Your task to perform on an android device: toggle pop-ups in chrome Image 0: 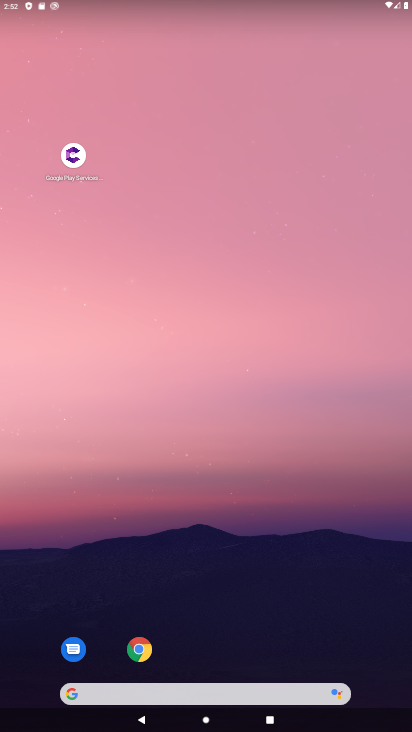
Step 0: drag from (236, 550) to (209, 358)
Your task to perform on an android device: toggle pop-ups in chrome Image 1: 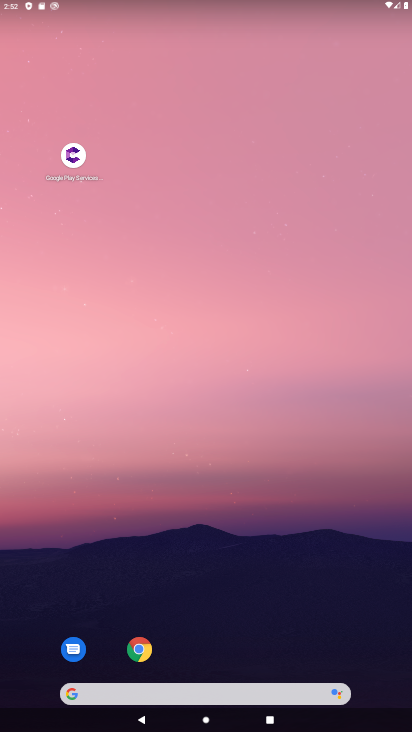
Step 1: drag from (261, 352) to (261, 202)
Your task to perform on an android device: toggle pop-ups in chrome Image 2: 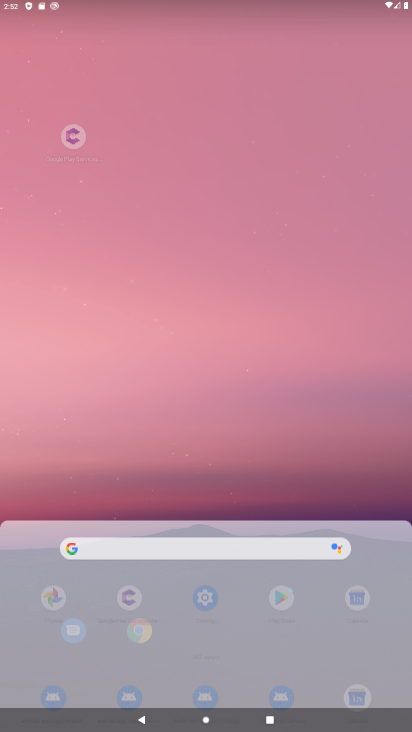
Step 2: drag from (248, 530) to (250, 289)
Your task to perform on an android device: toggle pop-ups in chrome Image 3: 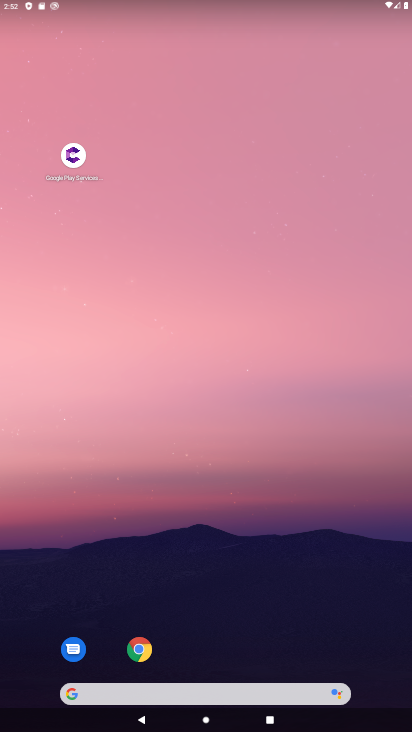
Step 3: drag from (226, 624) to (206, 272)
Your task to perform on an android device: toggle pop-ups in chrome Image 4: 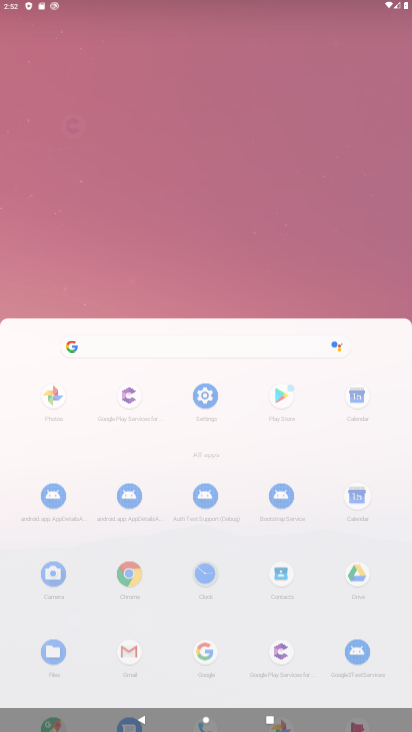
Step 4: drag from (233, 288) to (233, 6)
Your task to perform on an android device: toggle pop-ups in chrome Image 5: 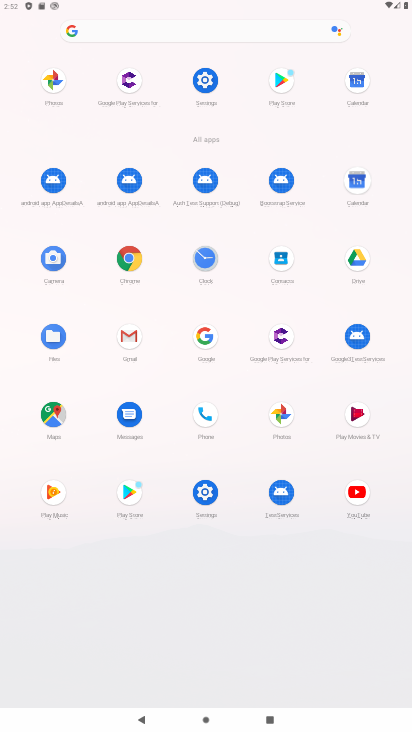
Step 5: drag from (266, 335) to (282, 48)
Your task to perform on an android device: toggle pop-ups in chrome Image 6: 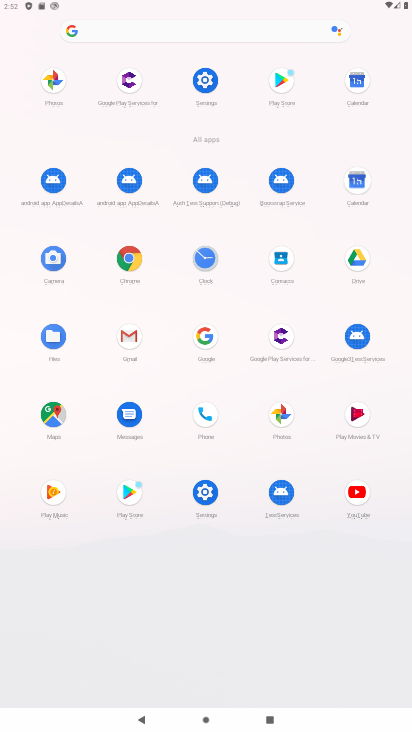
Step 6: click (131, 267)
Your task to perform on an android device: toggle pop-ups in chrome Image 7: 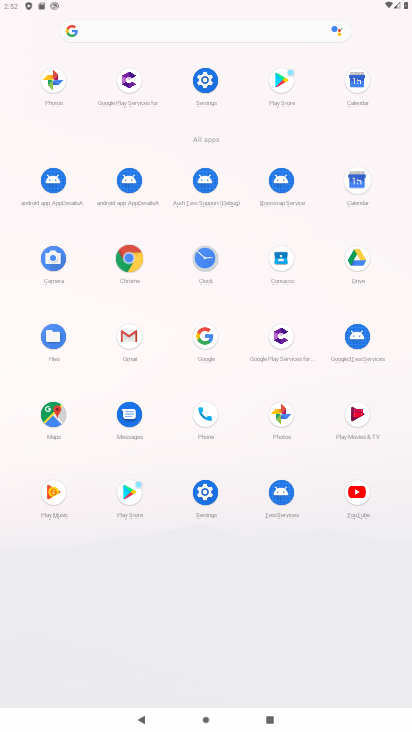
Step 7: click (131, 267)
Your task to perform on an android device: toggle pop-ups in chrome Image 8: 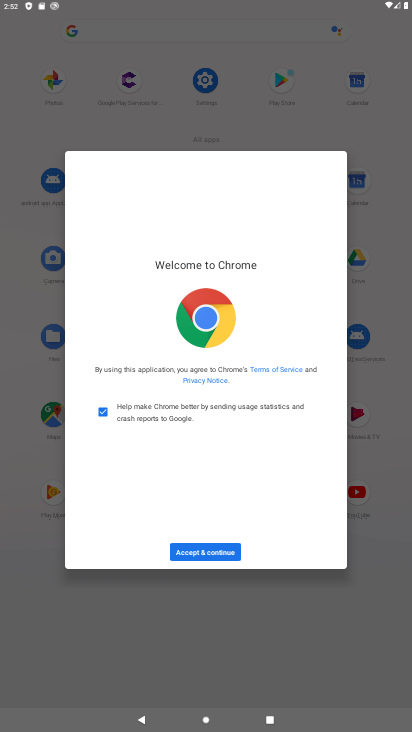
Step 8: click (208, 553)
Your task to perform on an android device: toggle pop-ups in chrome Image 9: 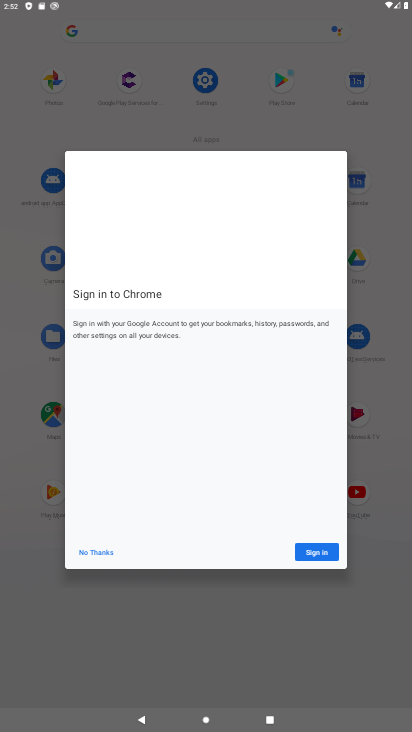
Step 9: click (208, 553)
Your task to perform on an android device: toggle pop-ups in chrome Image 10: 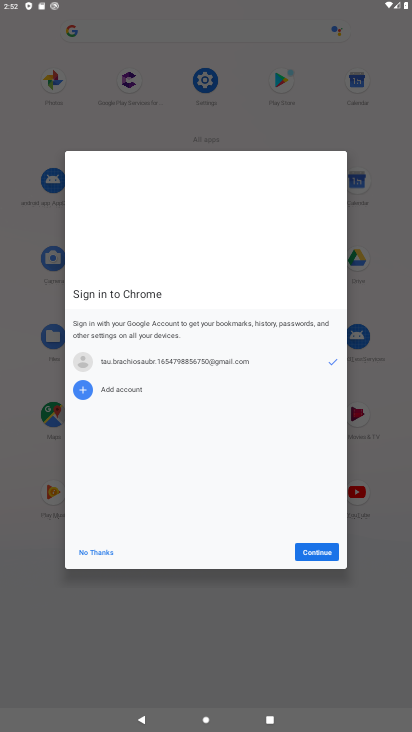
Step 10: click (208, 553)
Your task to perform on an android device: toggle pop-ups in chrome Image 11: 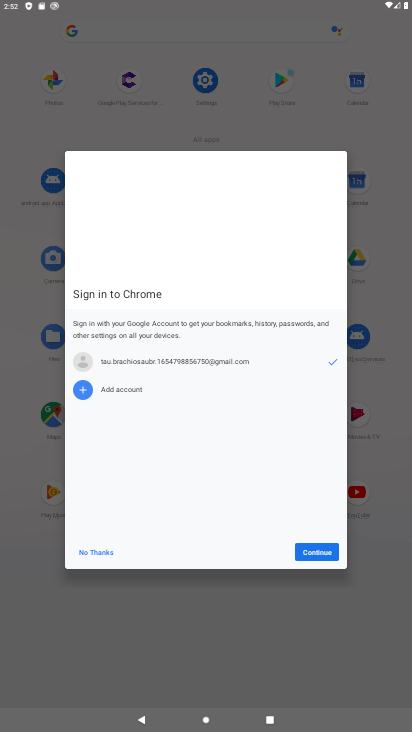
Step 11: click (327, 546)
Your task to perform on an android device: toggle pop-ups in chrome Image 12: 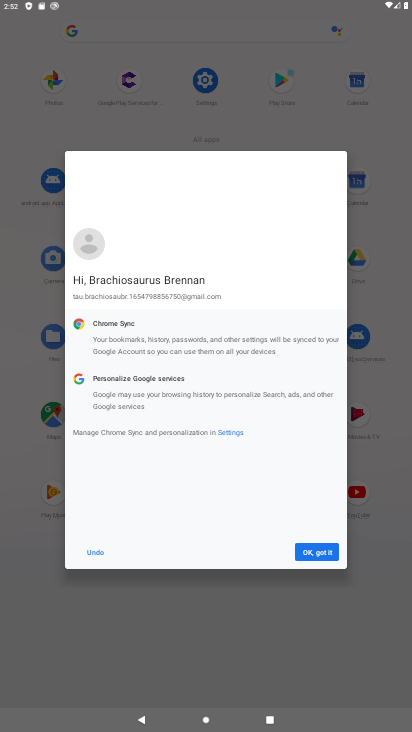
Step 12: click (330, 543)
Your task to perform on an android device: toggle pop-ups in chrome Image 13: 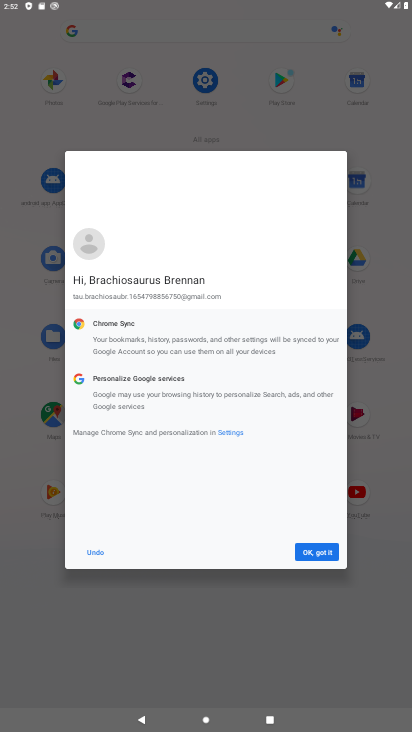
Step 13: click (327, 543)
Your task to perform on an android device: toggle pop-ups in chrome Image 14: 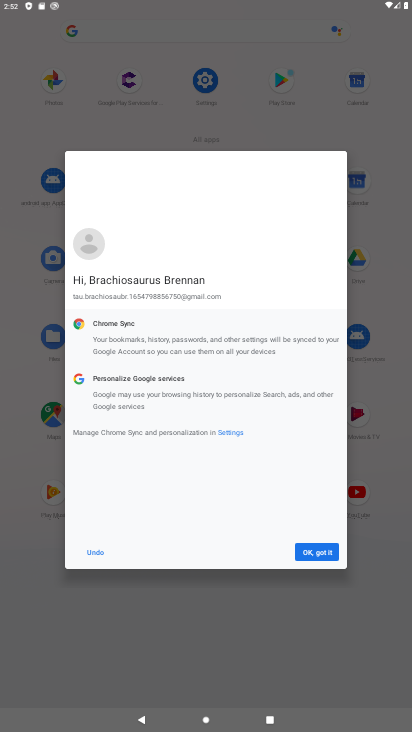
Step 14: click (319, 557)
Your task to perform on an android device: toggle pop-ups in chrome Image 15: 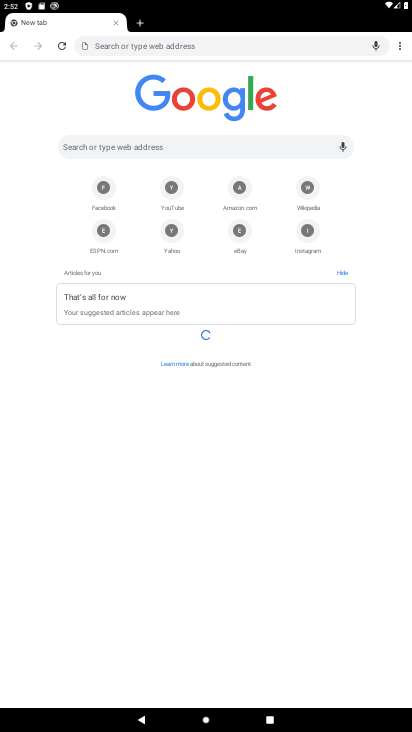
Step 15: drag from (398, 45) to (289, 375)
Your task to perform on an android device: toggle pop-ups in chrome Image 16: 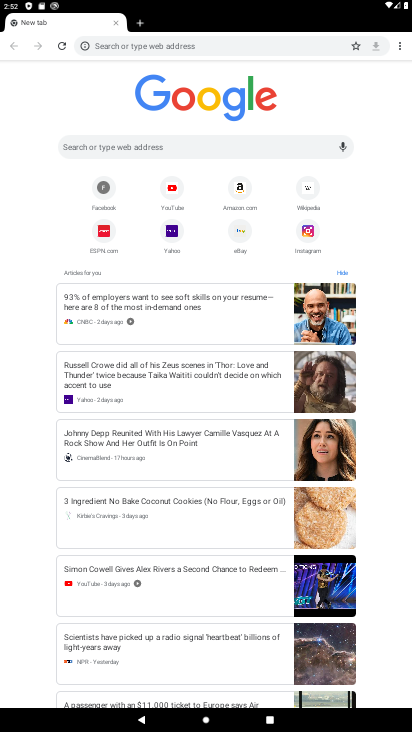
Step 16: click (289, 375)
Your task to perform on an android device: toggle pop-ups in chrome Image 17: 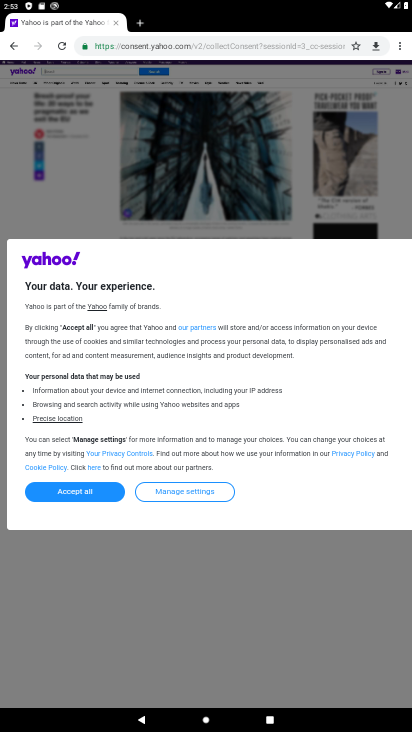
Step 17: drag from (408, 52) to (301, 309)
Your task to perform on an android device: toggle pop-ups in chrome Image 18: 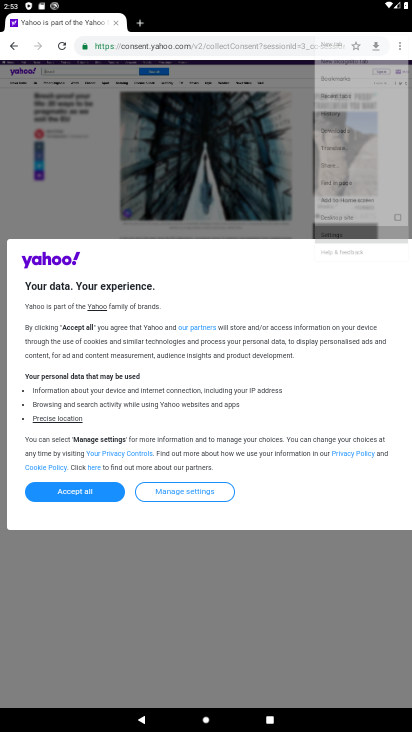
Step 18: click (300, 311)
Your task to perform on an android device: toggle pop-ups in chrome Image 19: 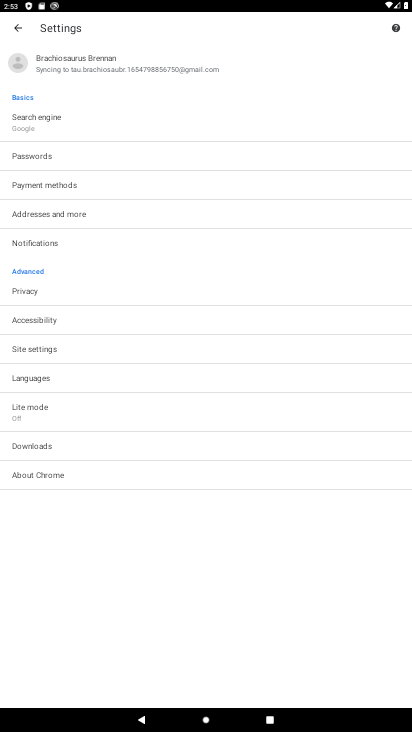
Step 19: click (30, 350)
Your task to perform on an android device: toggle pop-ups in chrome Image 20: 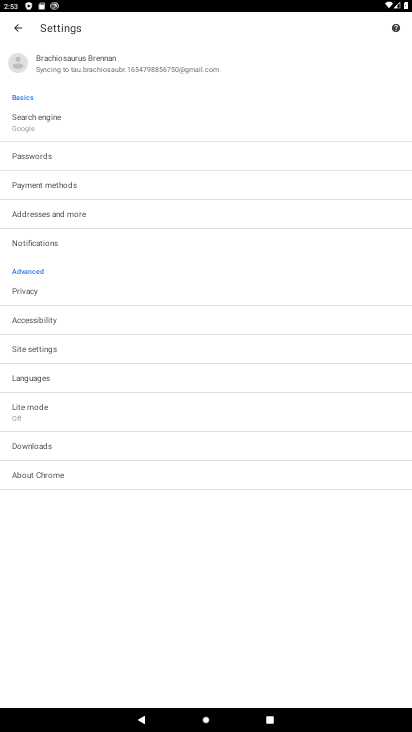
Step 20: click (27, 350)
Your task to perform on an android device: toggle pop-ups in chrome Image 21: 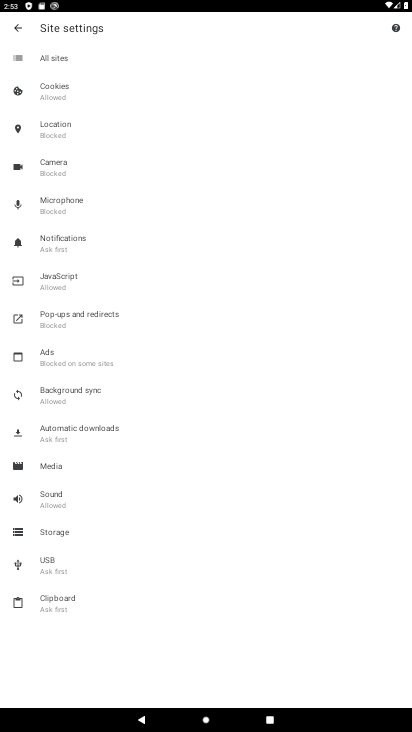
Step 21: click (50, 281)
Your task to perform on an android device: toggle pop-ups in chrome Image 22: 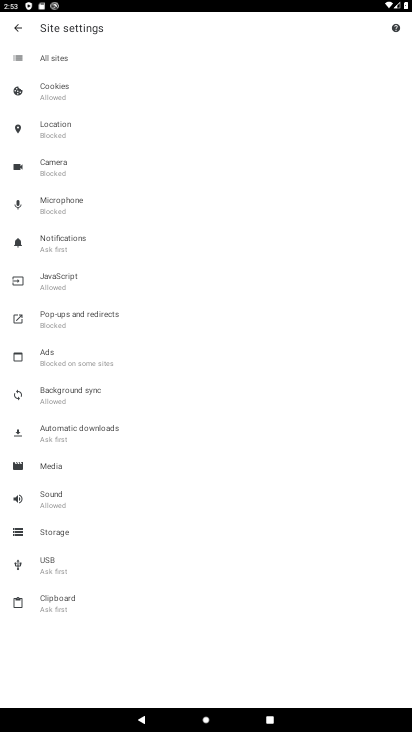
Step 22: click (50, 281)
Your task to perform on an android device: toggle pop-ups in chrome Image 23: 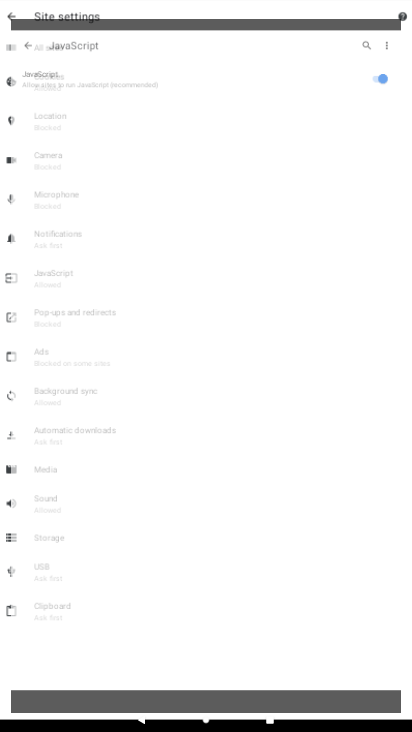
Step 23: click (50, 281)
Your task to perform on an android device: toggle pop-ups in chrome Image 24: 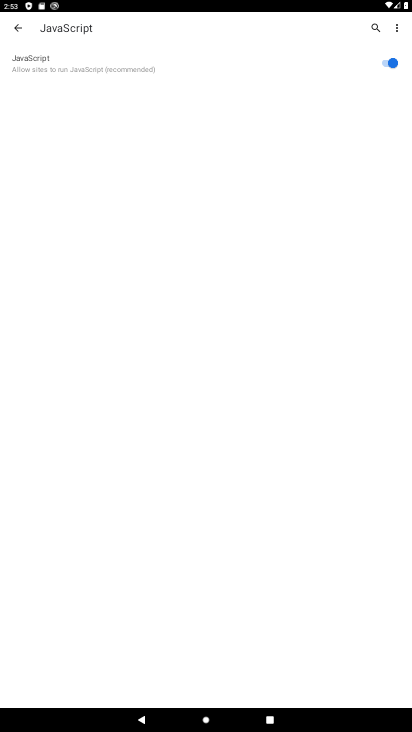
Step 24: click (387, 61)
Your task to perform on an android device: toggle pop-ups in chrome Image 25: 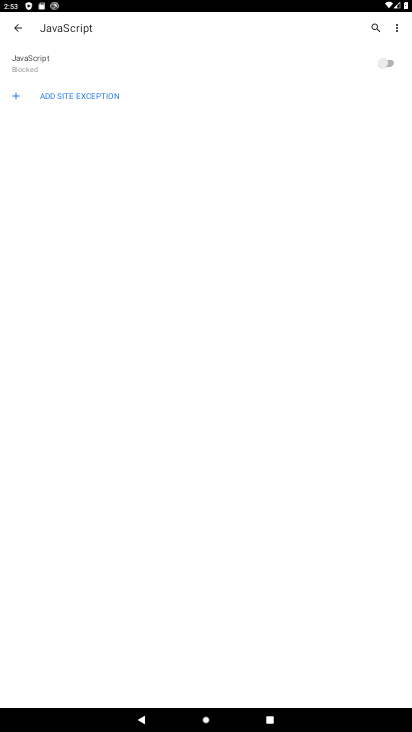
Step 25: task complete